Your task to perform on an android device: Go to internet settings Image 0: 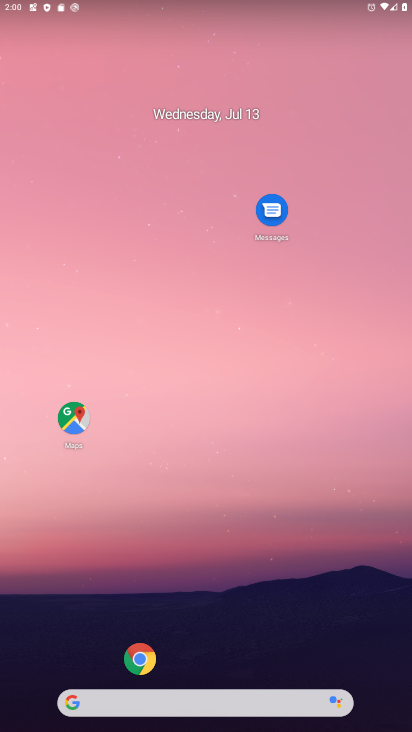
Step 0: drag from (113, 323) to (138, 82)
Your task to perform on an android device: Go to internet settings Image 1: 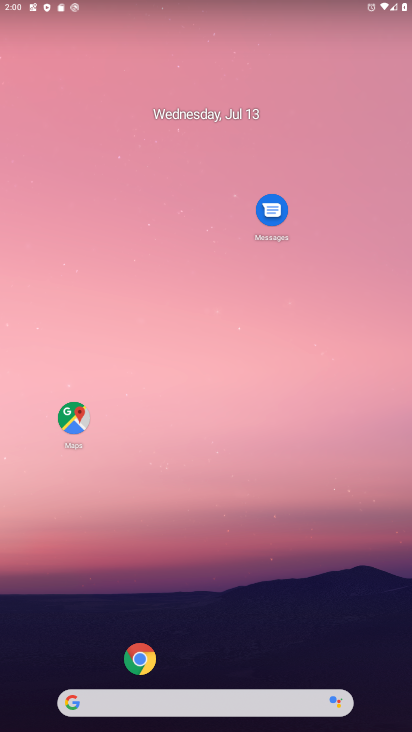
Step 1: drag from (33, 709) to (76, 12)
Your task to perform on an android device: Go to internet settings Image 2: 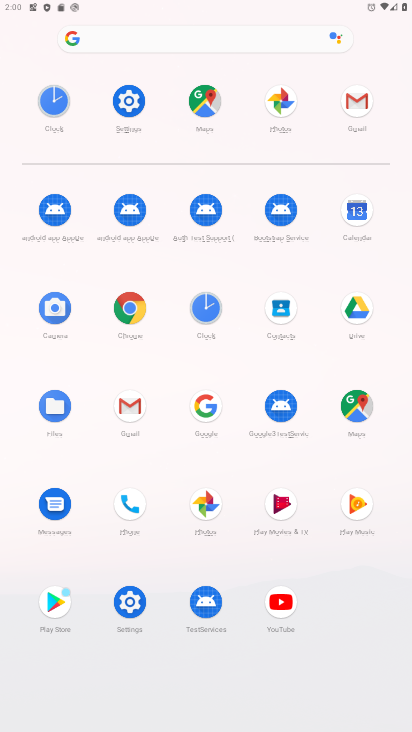
Step 2: click (123, 603)
Your task to perform on an android device: Go to internet settings Image 3: 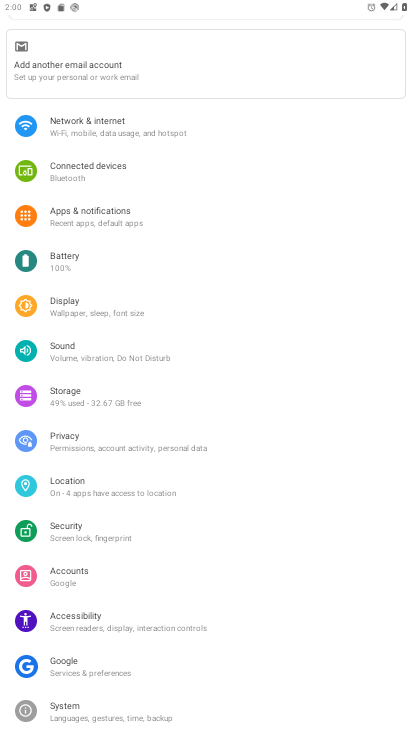
Step 3: click (78, 118)
Your task to perform on an android device: Go to internet settings Image 4: 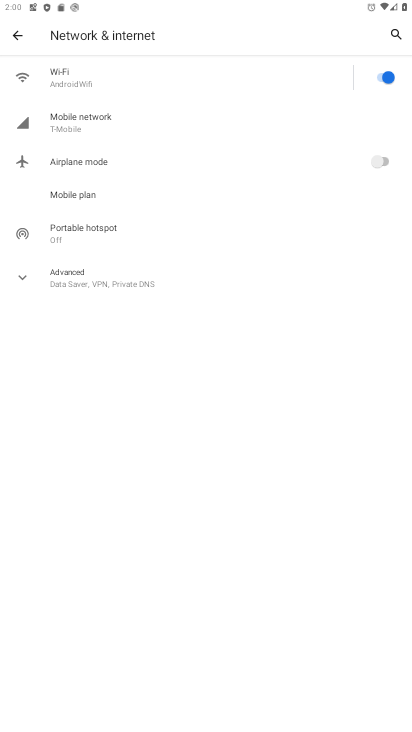
Step 4: task complete